Your task to perform on an android device: Open Chrome and go to the settings page Image 0: 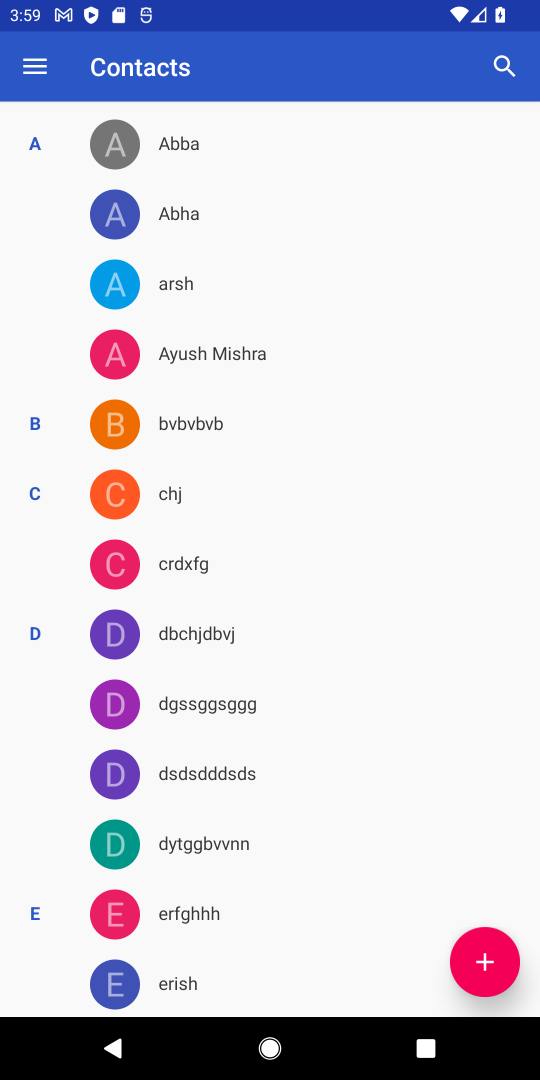
Step 0: press home button
Your task to perform on an android device: Open Chrome and go to the settings page Image 1: 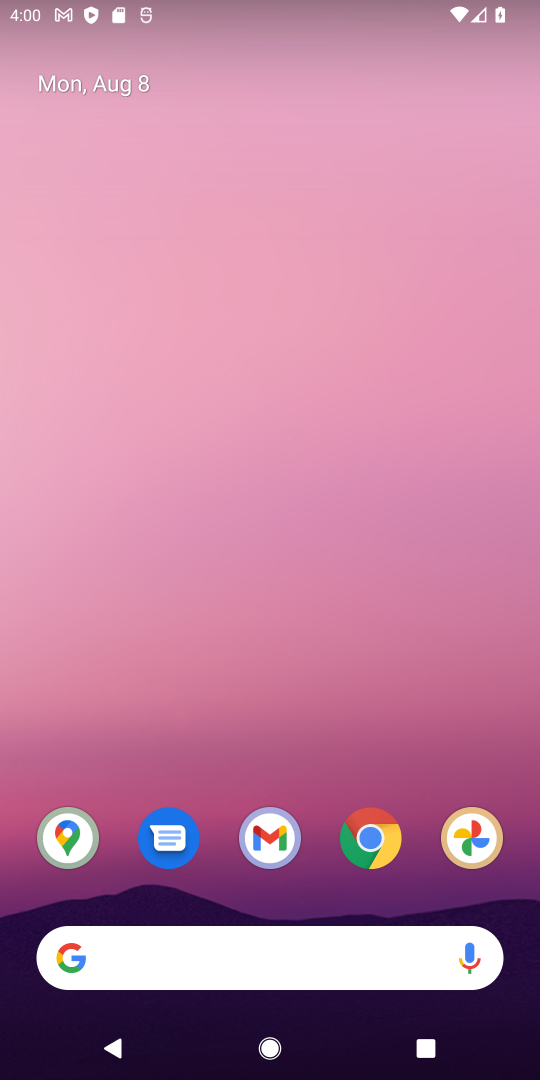
Step 1: click (371, 838)
Your task to perform on an android device: Open Chrome and go to the settings page Image 2: 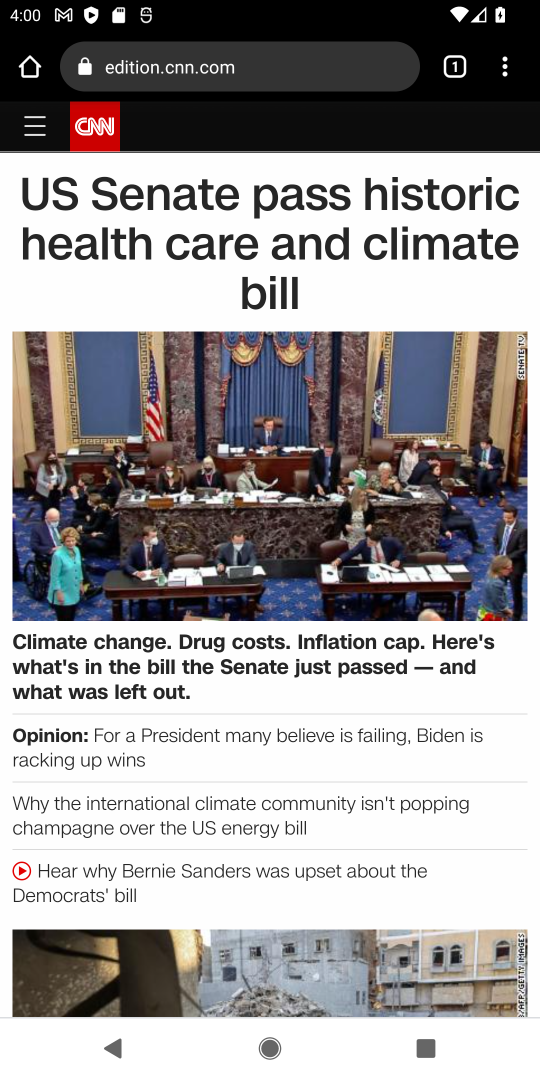
Step 2: click (507, 73)
Your task to perform on an android device: Open Chrome and go to the settings page Image 3: 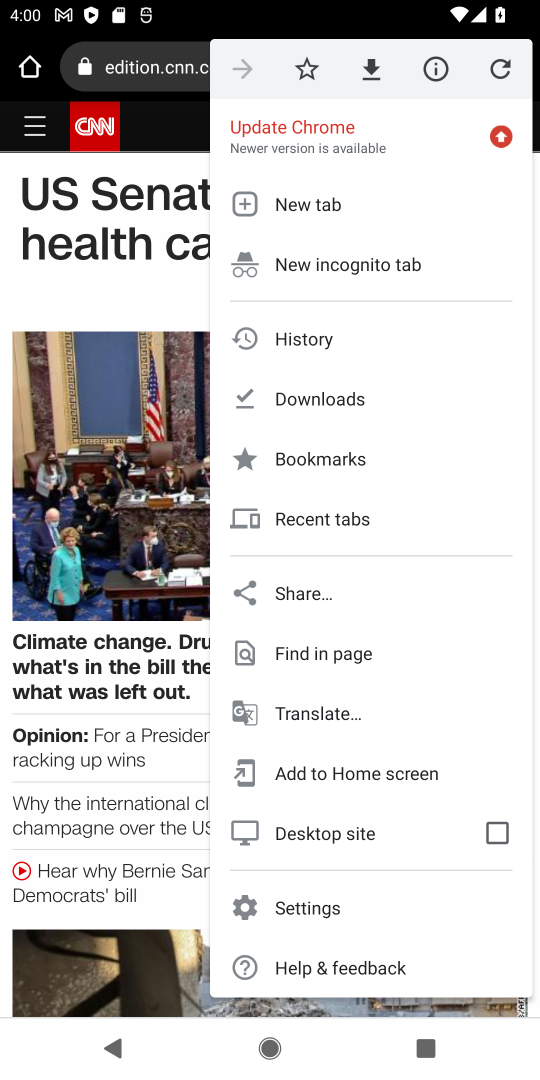
Step 3: click (302, 911)
Your task to perform on an android device: Open Chrome and go to the settings page Image 4: 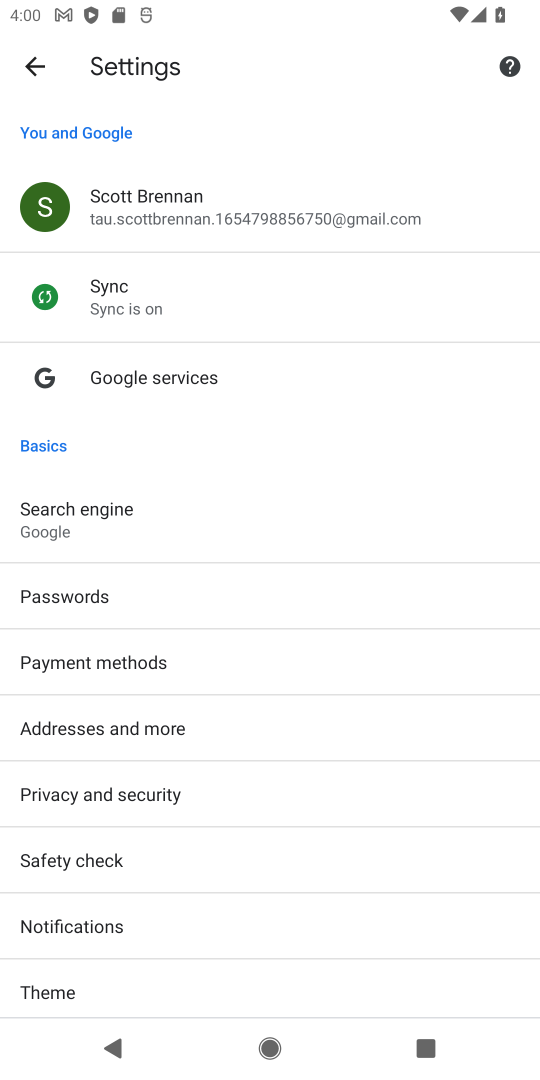
Step 4: task complete